Your task to perform on an android device: turn smart compose on in the gmail app Image 0: 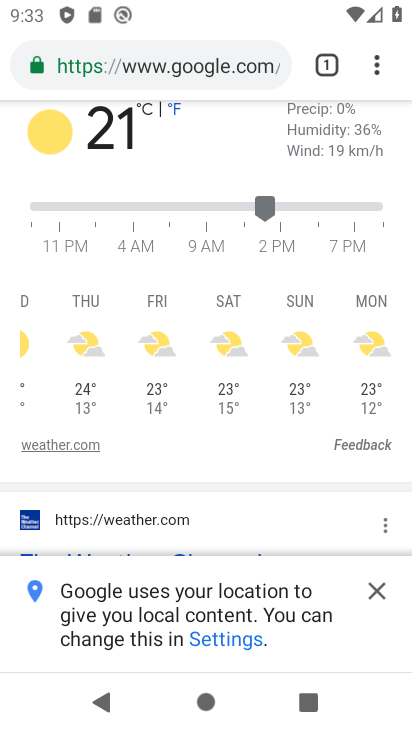
Step 0: press home button
Your task to perform on an android device: turn smart compose on in the gmail app Image 1: 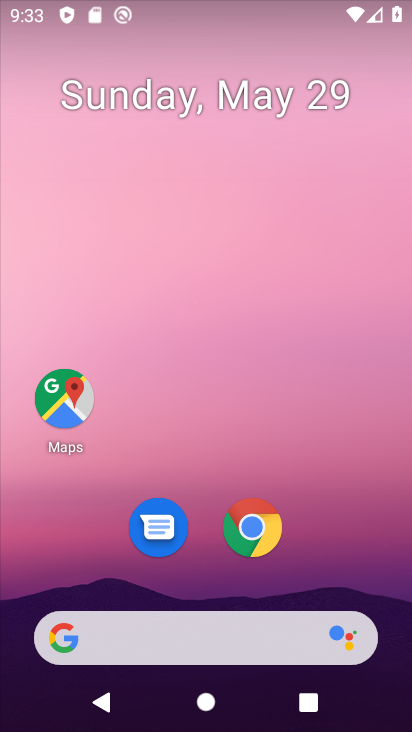
Step 1: drag from (333, 533) to (316, 175)
Your task to perform on an android device: turn smart compose on in the gmail app Image 2: 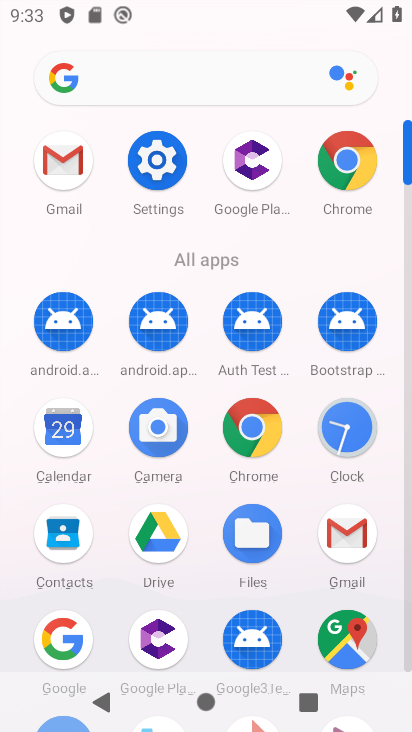
Step 2: click (71, 157)
Your task to perform on an android device: turn smart compose on in the gmail app Image 3: 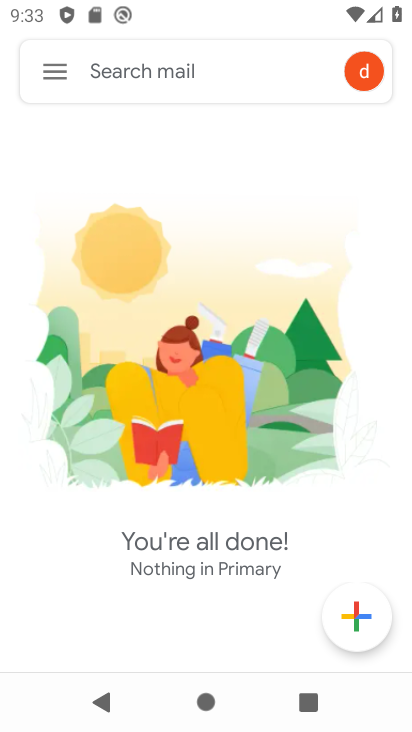
Step 3: click (64, 72)
Your task to perform on an android device: turn smart compose on in the gmail app Image 4: 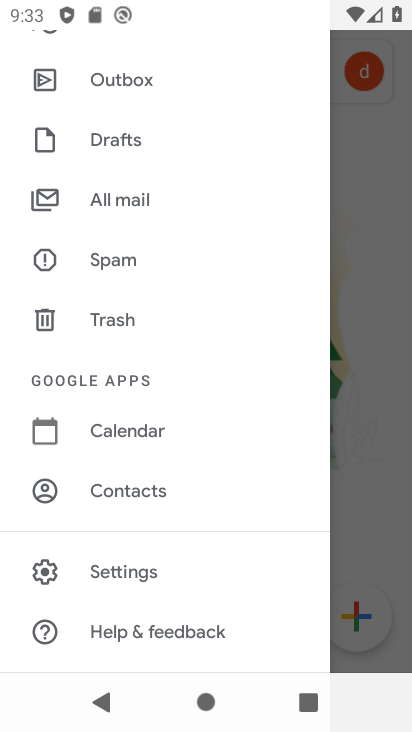
Step 4: click (121, 564)
Your task to perform on an android device: turn smart compose on in the gmail app Image 5: 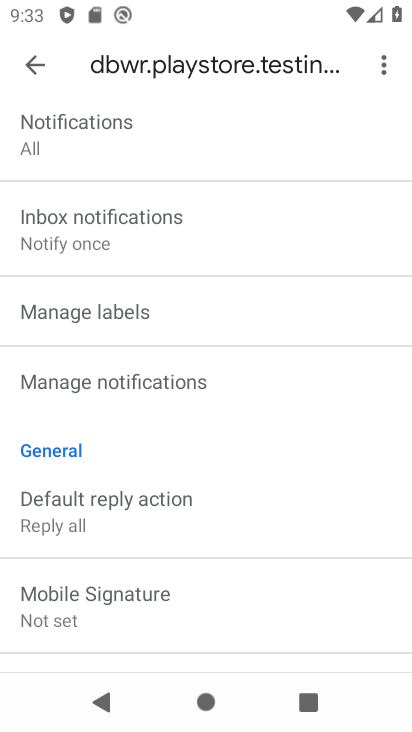
Step 5: drag from (153, 240) to (200, 621)
Your task to perform on an android device: turn smart compose on in the gmail app Image 6: 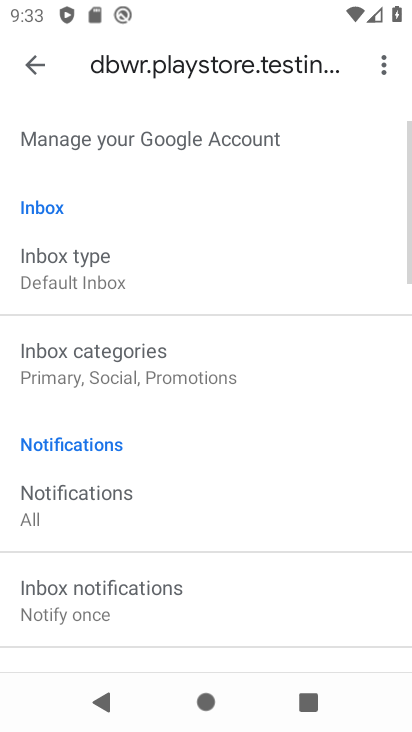
Step 6: click (200, 620)
Your task to perform on an android device: turn smart compose on in the gmail app Image 7: 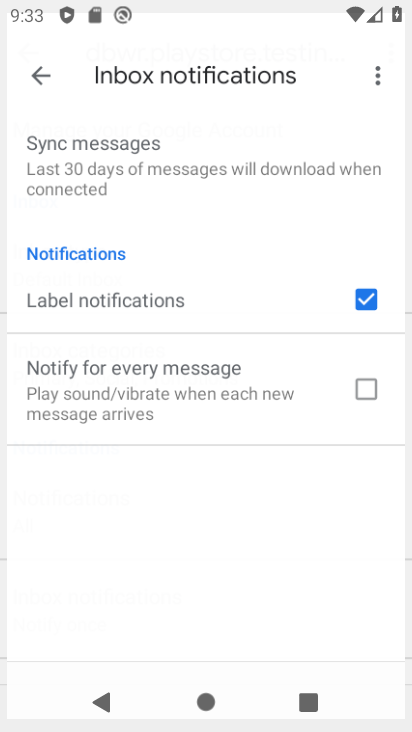
Step 7: drag from (199, 243) to (198, 401)
Your task to perform on an android device: turn smart compose on in the gmail app Image 8: 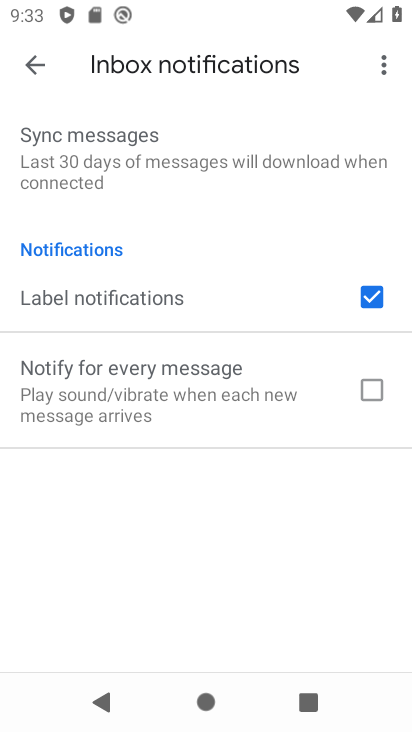
Step 8: click (23, 56)
Your task to perform on an android device: turn smart compose on in the gmail app Image 9: 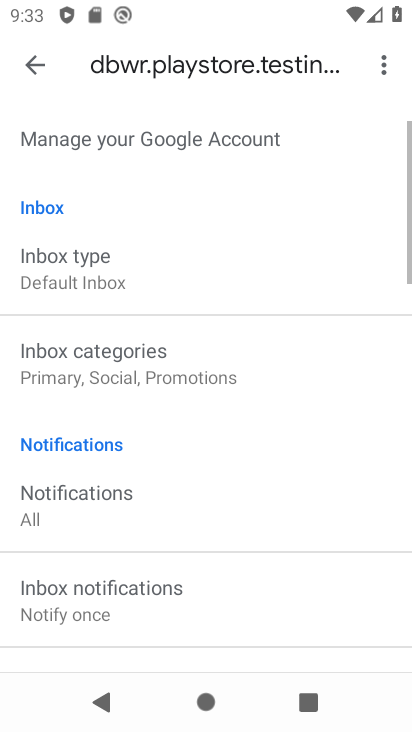
Step 9: task complete